Your task to perform on an android device: set default search engine in the chrome app Image 0: 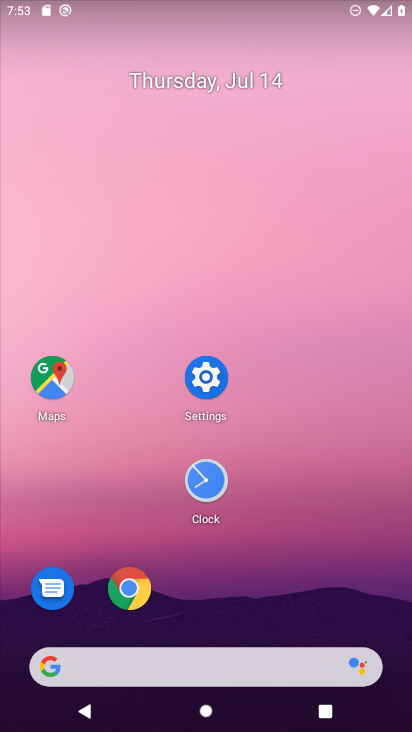
Step 0: click (134, 582)
Your task to perform on an android device: set default search engine in the chrome app Image 1: 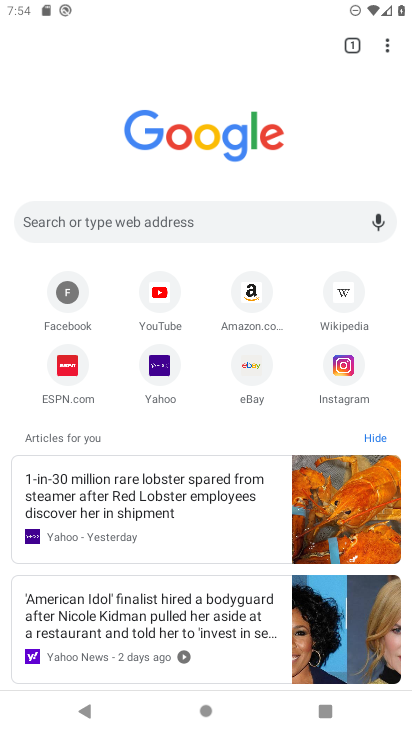
Step 1: click (390, 43)
Your task to perform on an android device: set default search engine in the chrome app Image 2: 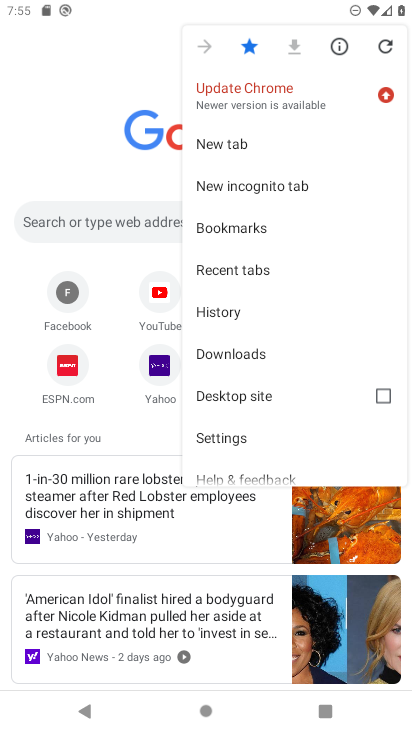
Step 2: click (225, 439)
Your task to perform on an android device: set default search engine in the chrome app Image 3: 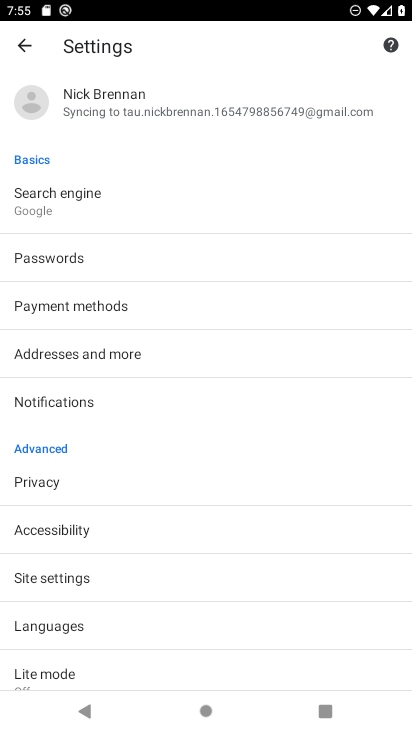
Step 3: click (106, 199)
Your task to perform on an android device: set default search engine in the chrome app Image 4: 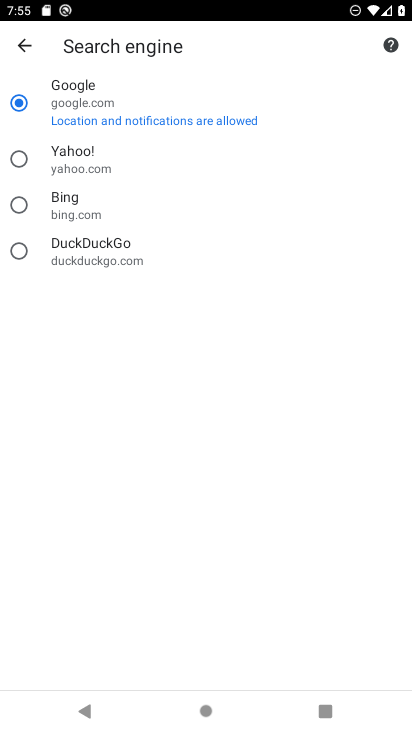
Step 4: task complete